Your task to perform on an android device: see tabs open on other devices in the chrome app Image 0: 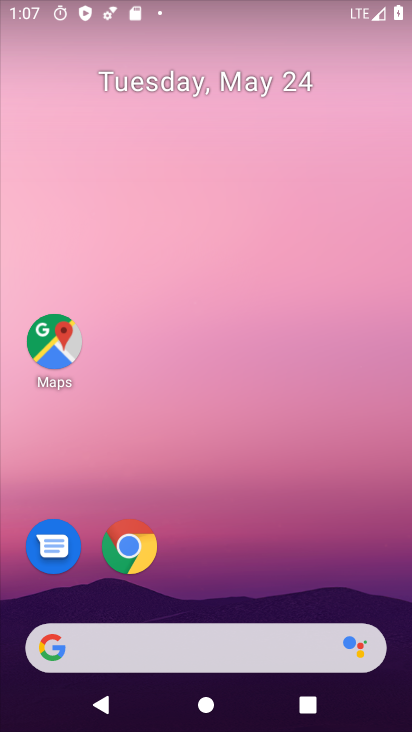
Step 0: click (258, 147)
Your task to perform on an android device: see tabs open on other devices in the chrome app Image 1: 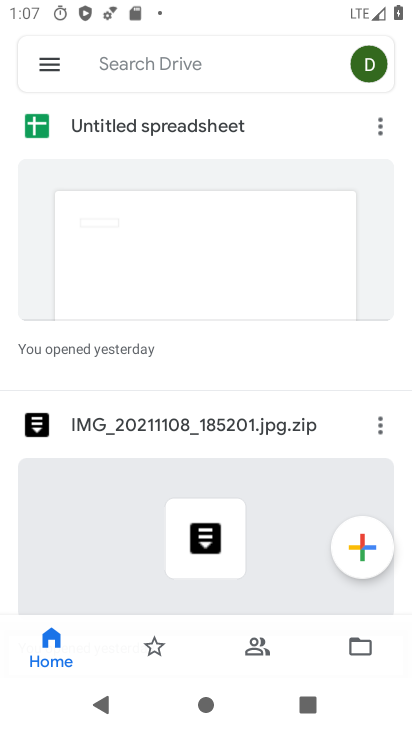
Step 1: drag from (244, 514) to (336, 61)
Your task to perform on an android device: see tabs open on other devices in the chrome app Image 2: 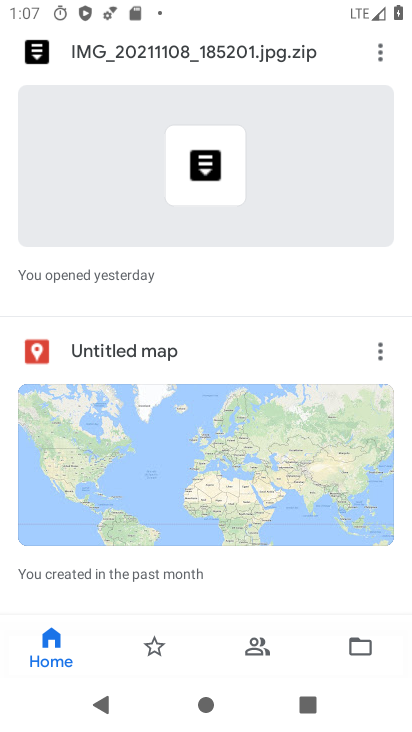
Step 2: press home button
Your task to perform on an android device: see tabs open on other devices in the chrome app Image 3: 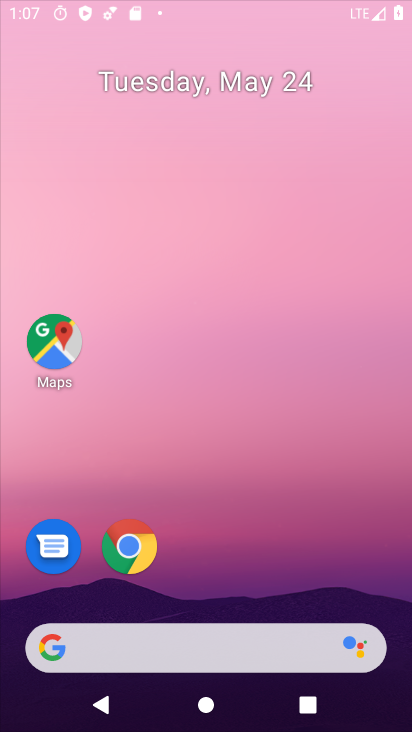
Step 3: drag from (190, 524) to (260, 115)
Your task to perform on an android device: see tabs open on other devices in the chrome app Image 4: 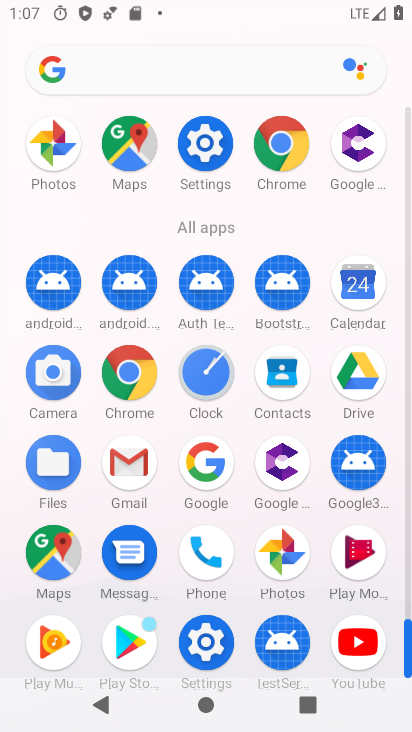
Step 4: click (131, 381)
Your task to perform on an android device: see tabs open on other devices in the chrome app Image 5: 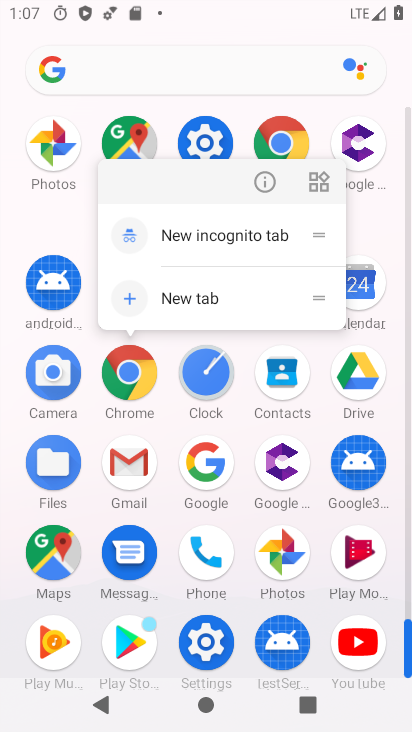
Step 5: click (259, 176)
Your task to perform on an android device: see tabs open on other devices in the chrome app Image 6: 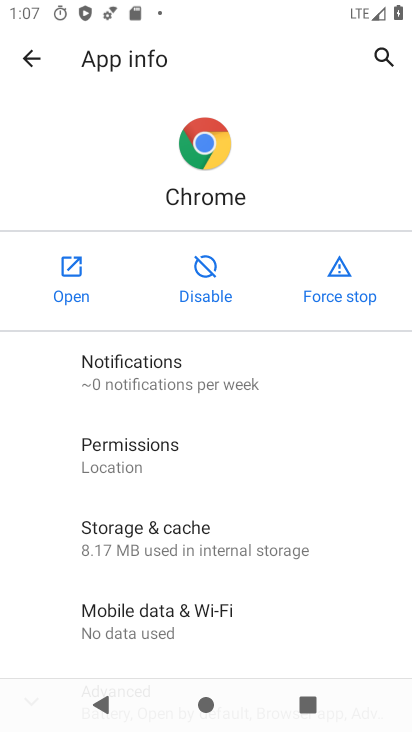
Step 6: click (77, 261)
Your task to perform on an android device: see tabs open on other devices in the chrome app Image 7: 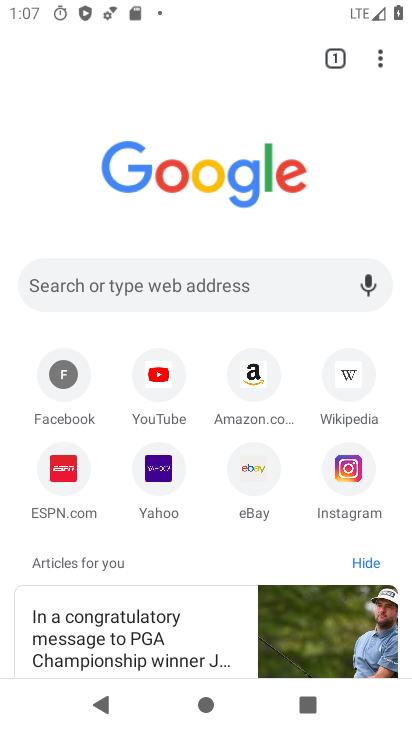
Step 7: drag from (167, 546) to (223, 222)
Your task to perform on an android device: see tabs open on other devices in the chrome app Image 8: 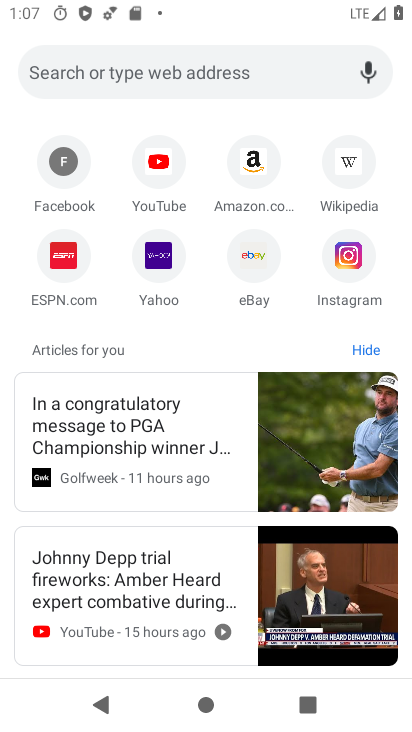
Step 8: drag from (293, 127) to (352, 325)
Your task to perform on an android device: see tabs open on other devices in the chrome app Image 9: 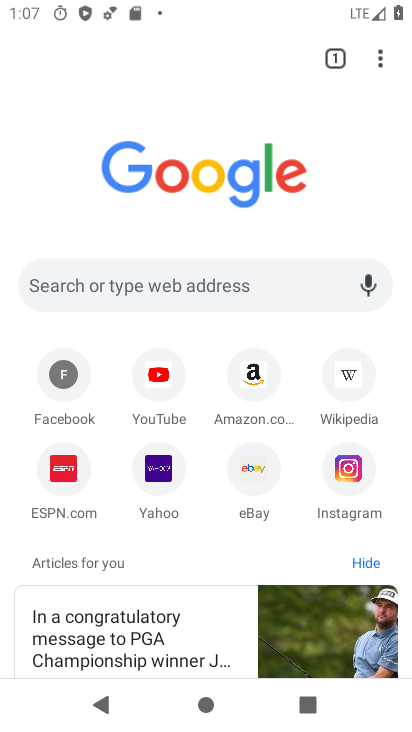
Step 9: click (377, 52)
Your task to perform on an android device: see tabs open on other devices in the chrome app Image 10: 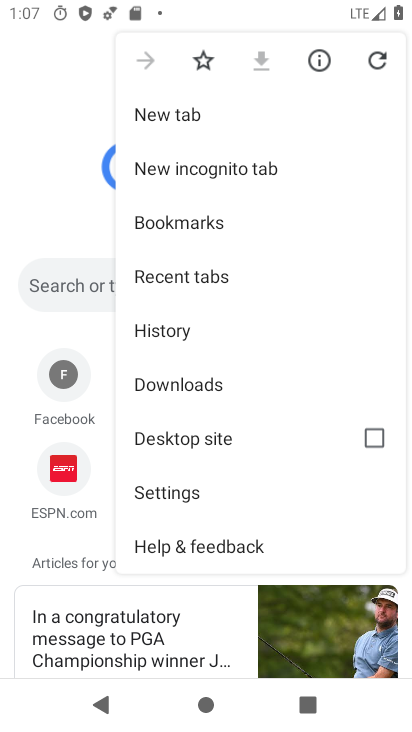
Step 10: drag from (192, 438) to (296, 90)
Your task to perform on an android device: see tabs open on other devices in the chrome app Image 11: 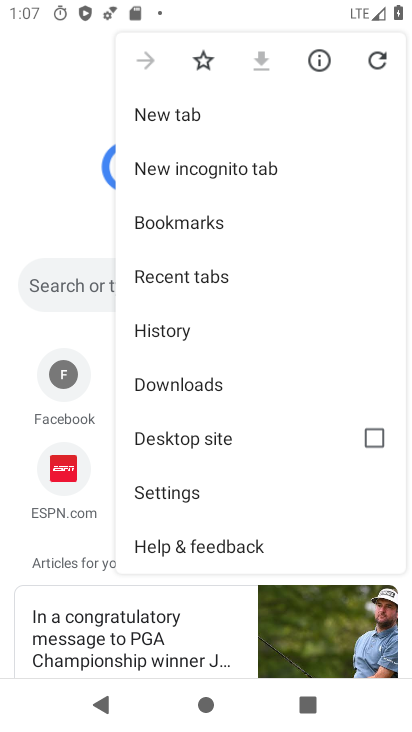
Step 11: click (240, 283)
Your task to perform on an android device: see tabs open on other devices in the chrome app Image 12: 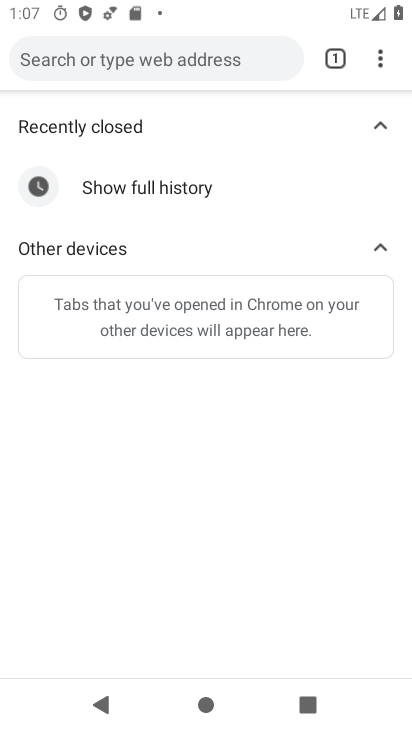
Step 12: task complete